Your task to perform on an android device: turn smart compose on in the gmail app Image 0: 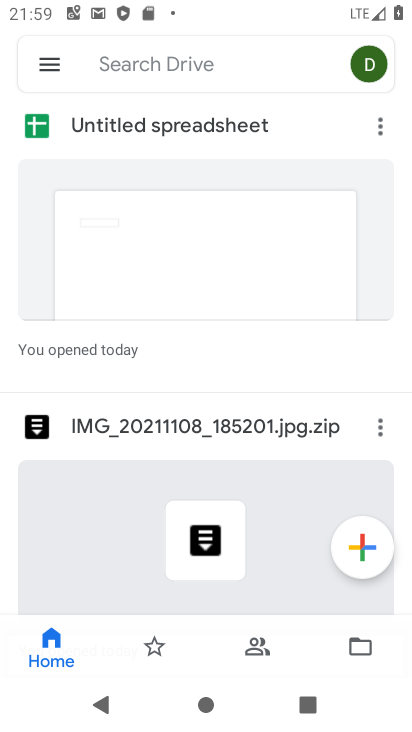
Step 0: press home button
Your task to perform on an android device: turn smart compose on in the gmail app Image 1: 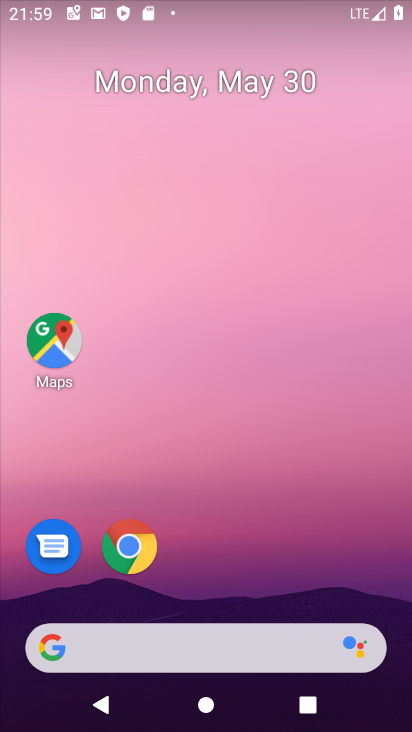
Step 1: drag from (342, 549) to (318, 94)
Your task to perform on an android device: turn smart compose on in the gmail app Image 2: 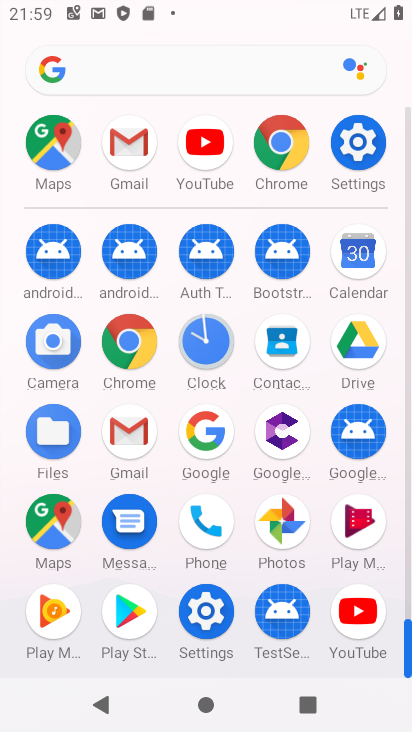
Step 2: click (138, 430)
Your task to perform on an android device: turn smart compose on in the gmail app Image 3: 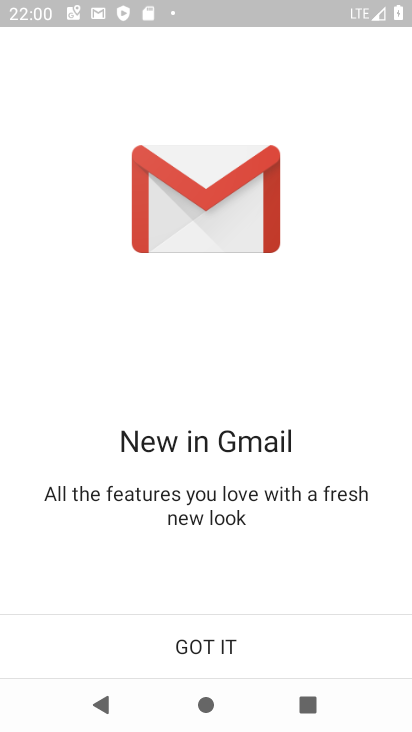
Step 3: click (213, 673)
Your task to perform on an android device: turn smart compose on in the gmail app Image 4: 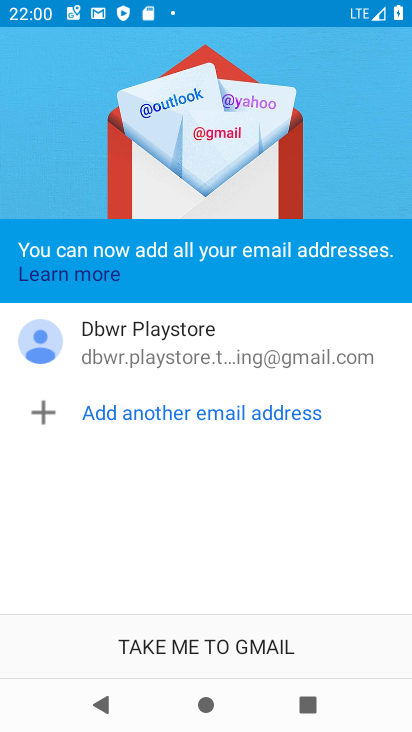
Step 4: click (225, 637)
Your task to perform on an android device: turn smart compose on in the gmail app Image 5: 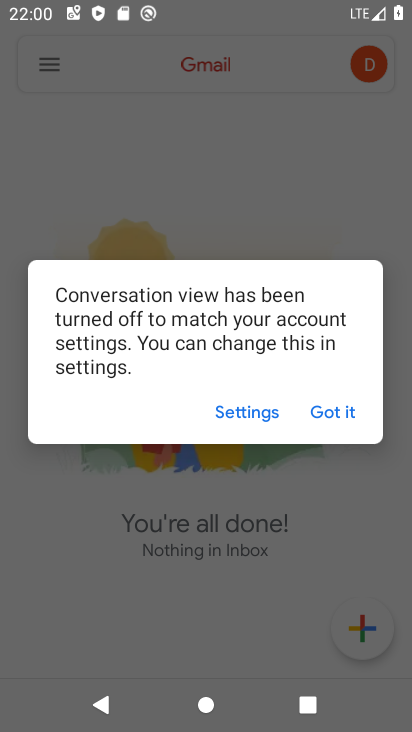
Step 5: click (344, 420)
Your task to perform on an android device: turn smart compose on in the gmail app Image 6: 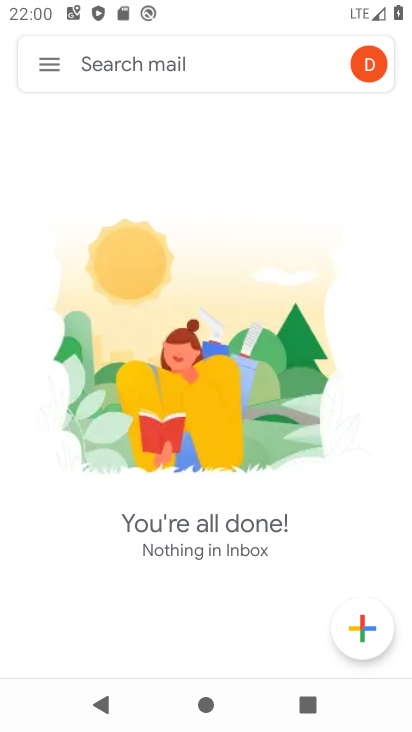
Step 6: click (40, 51)
Your task to perform on an android device: turn smart compose on in the gmail app Image 7: 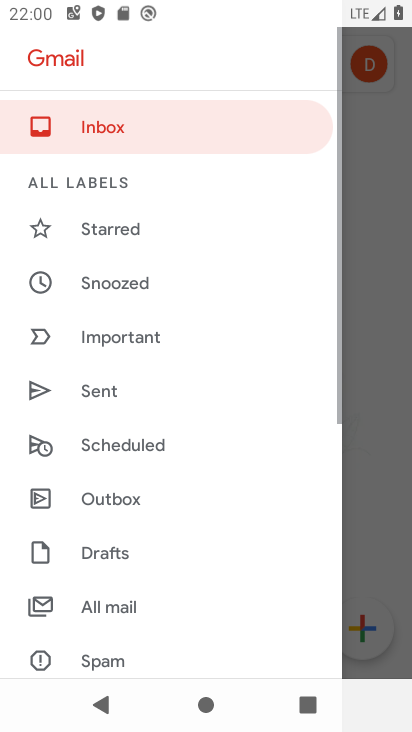
Step 7: drag from (202, 611) to (191, 259)
Your task to perform on an android device: turn smart compose on in the gmail app Image 8: 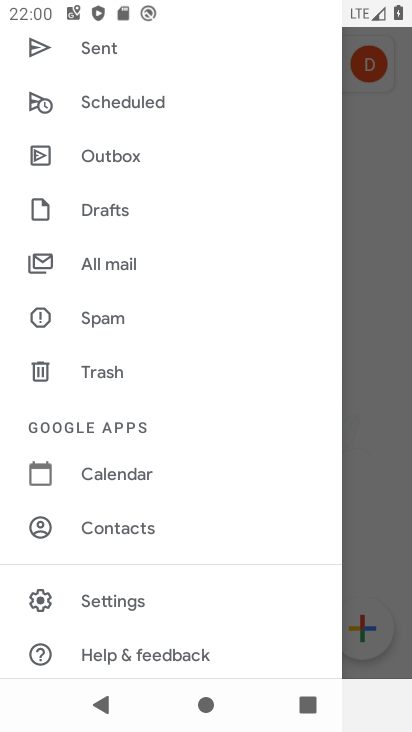
Step 8: click (159, 592)
Your task to perform on an android device: turn smart compose on in the gmail app Image 9: 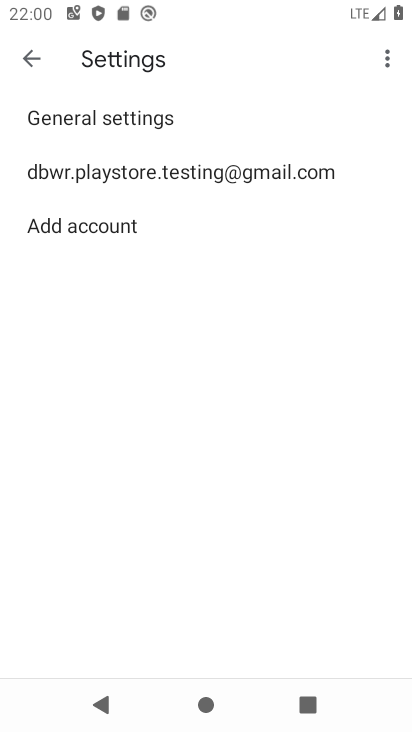
Step 9: click (228, 181)
Your task to perform on an android device: turn smart compose on in the gmail app Image 10: 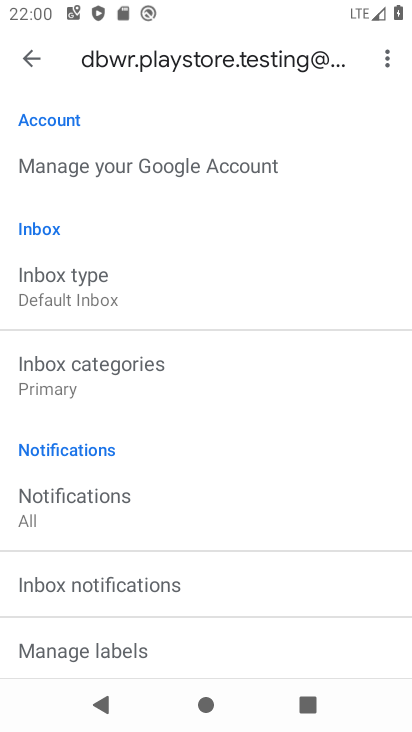
Step 10: task complete